Your task to perform on an android device: toggle priority inbox in the gmail app Image 0: 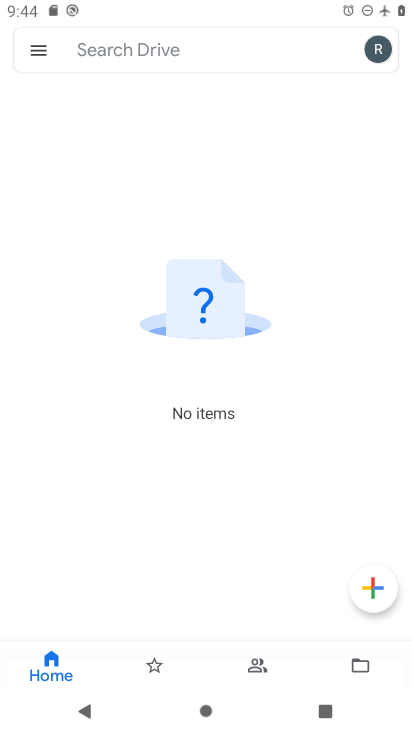
Step 0: press home button
Your task to perform on an android device: toggle priority inbox in the gmail app Image 1: 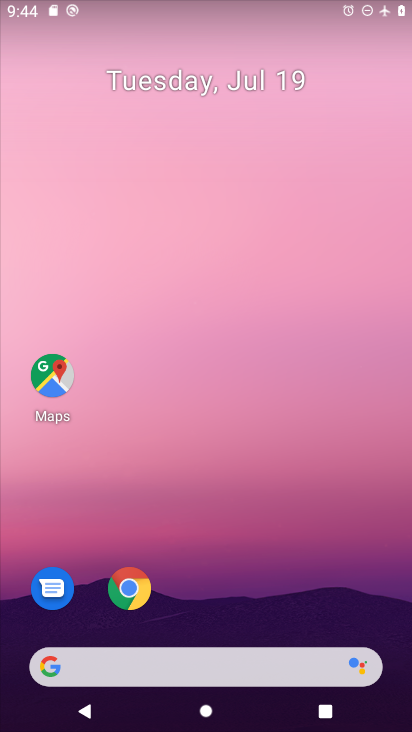
Step 1: drag from (341, 576) to (332, 493)
Your task to perform on an android device: toggle priority inbox in the gmail app Image 2: 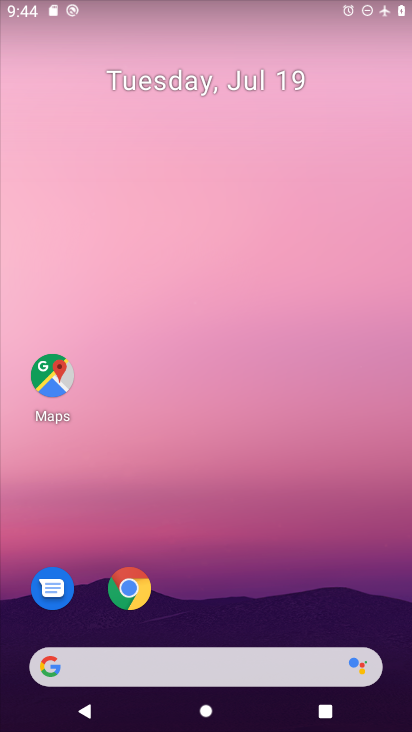
Step 2: drag from (323, 546) to (338, 105)
Your task to perform on an android device: toggle priority inbox in the gmail app Image 3: 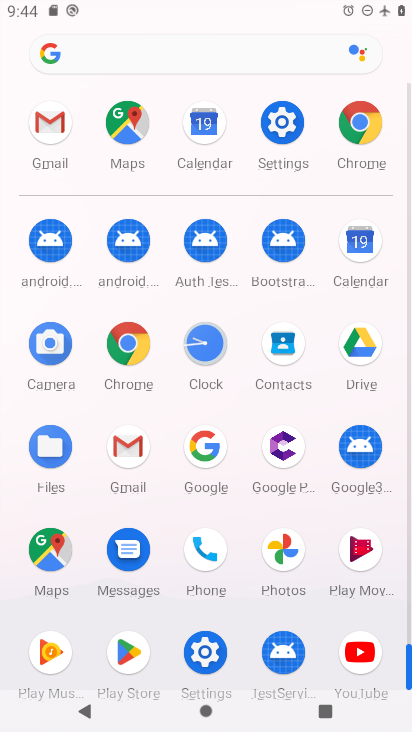
Step 3: click (134, 462)
Your task to perform on an android device: toggle priority inbox in the gmail app Image 4: 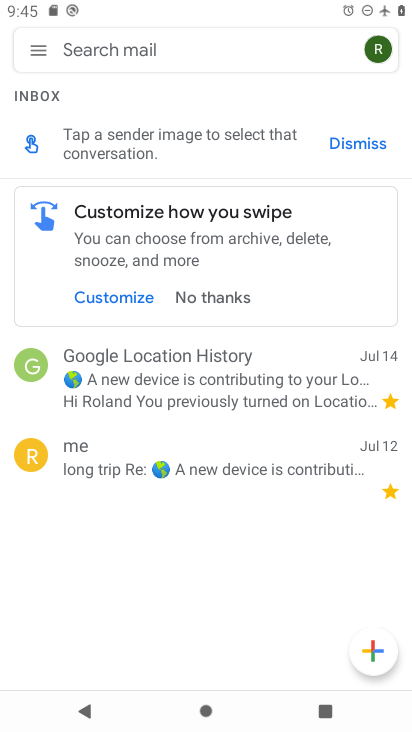
Step 4: click (32, 48)
Your task to perform on an android device: toggle priority inbox in the gmail app Image 5: 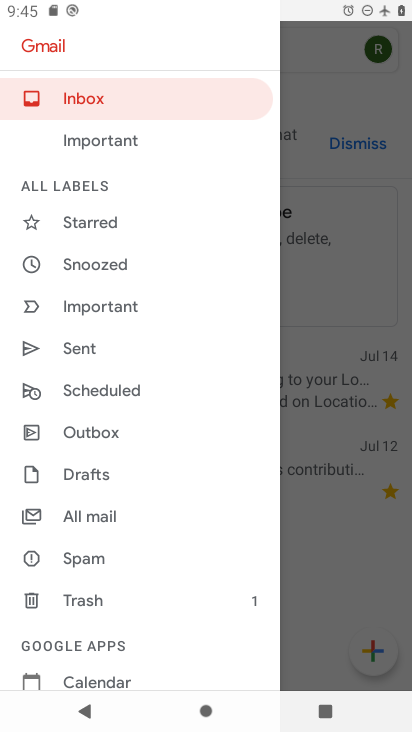
Step 5: drag from (163, 588) to (192, 432)
Your task to perform on an android device: toggle priority inbox in the gmail app Image 6: 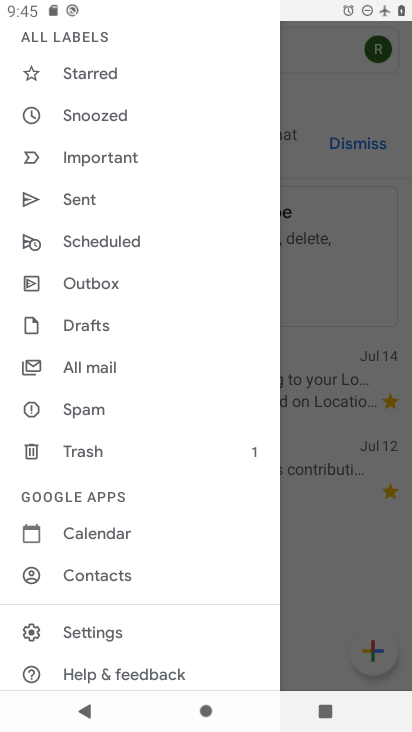
Step 6: click (158, 630)
Your task to perform on an android device: toggle priority inbox in the gmail app Image 7: 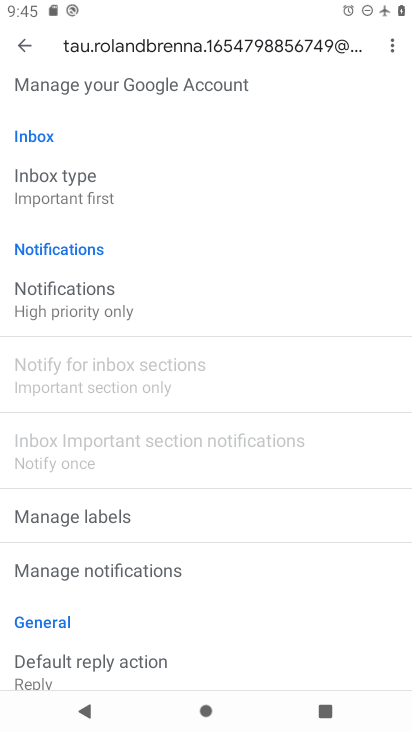
Step 7: click (163, 196)
Your task to perform on an android device: toggle priority inbox in the gmail app Image 8: 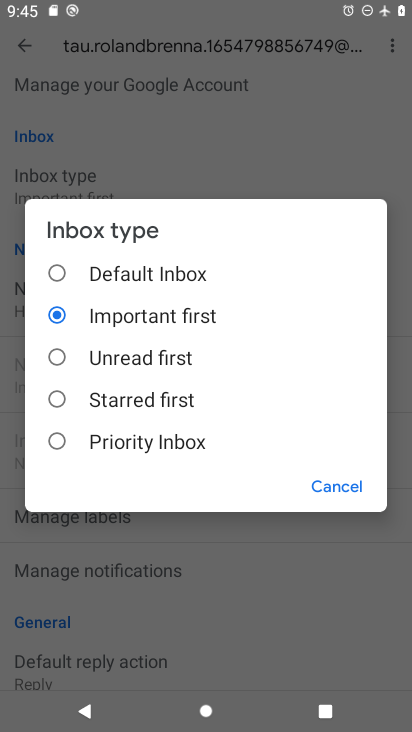
Step 8: click (197, 444)
Your task to perform on an android device: toggle priority inbox in the gmail app Image 9: 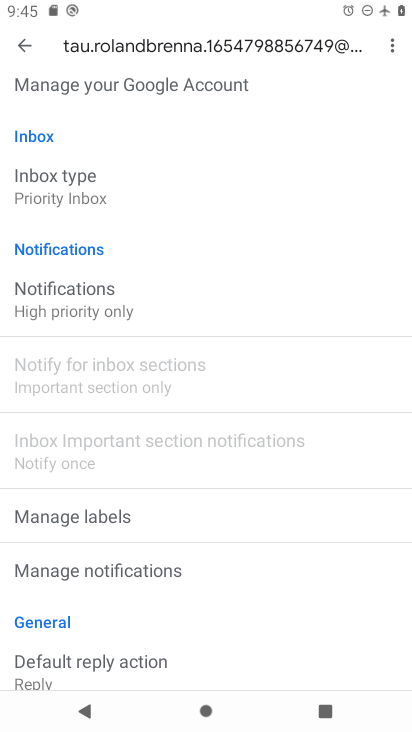
Step 9: task complete